Your task to perform on an android device: Search for Mexican restaurants on Maps Image 0: 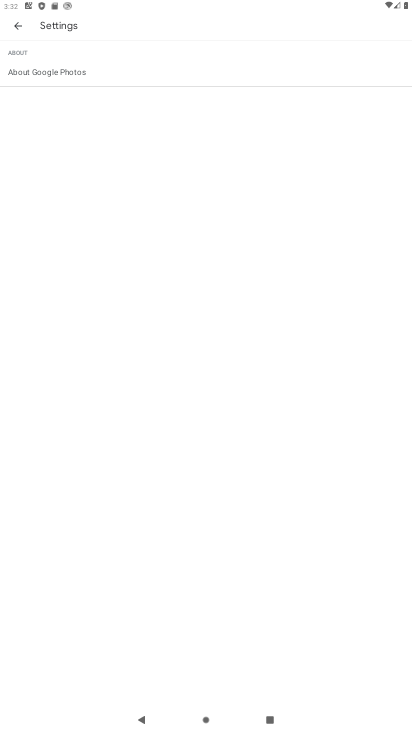
Step 0: drag from (162, 483) to (208, 715)
Your task to perform on an android device: Search for Mexican restaurants on Maps Image 1: 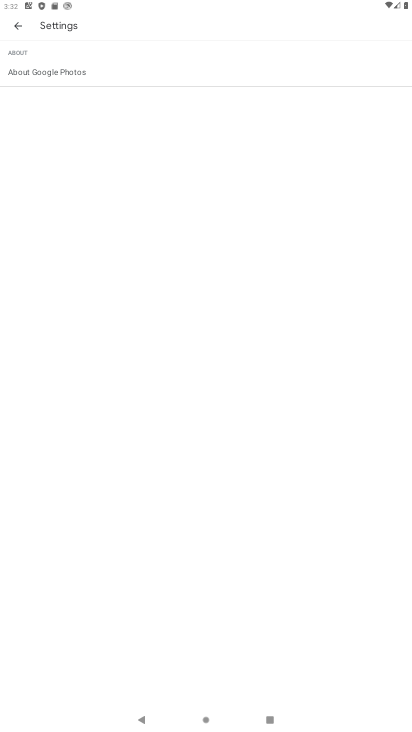
Step 1: press home button
Your task to perform on an android device: Search for Mexican restaurants on Maps Image 2: 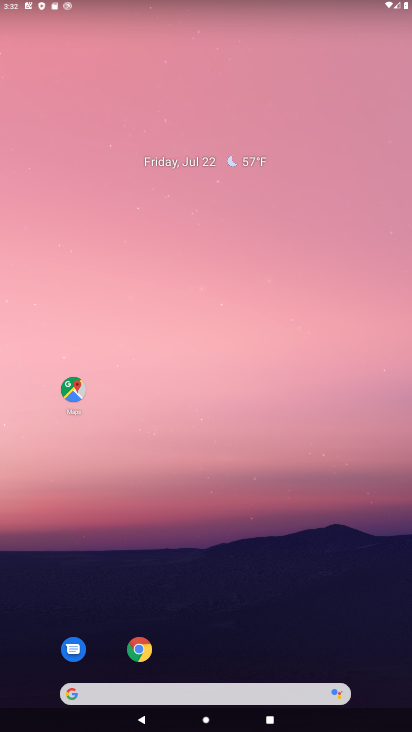
Step 2: click (72, 390)
Your task to perform on an android device: Search for Mexican restaurants on Maps Image 3: 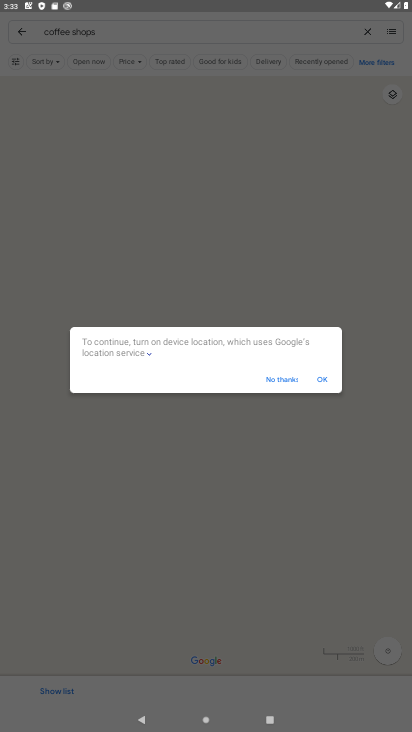
Step 3: click (324, 376)
Your task to perform on an android device: Search for Mexican restaurants on Maps Image 4: 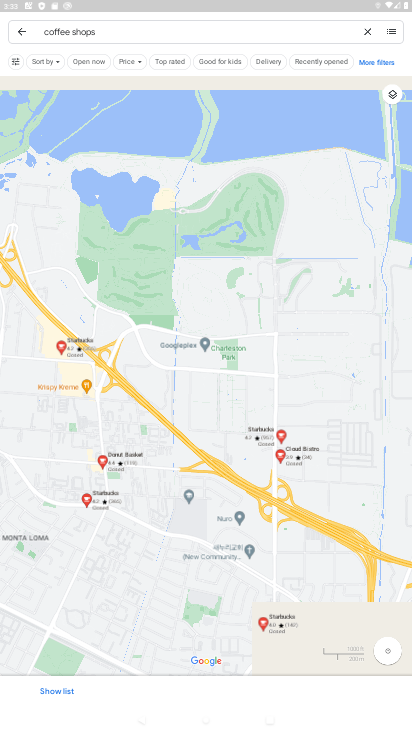
Step 4: click (14, 28)
Your task to perform on an android device: Search for Mexican restaurants on Maps Image 5: 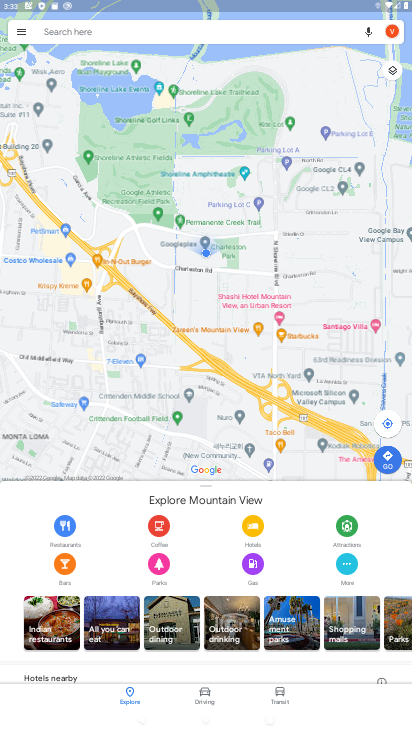
Step 5: click (74, 28)
Your task to perform on an android device: Search for Mexican restaurants on Maps Image 6: 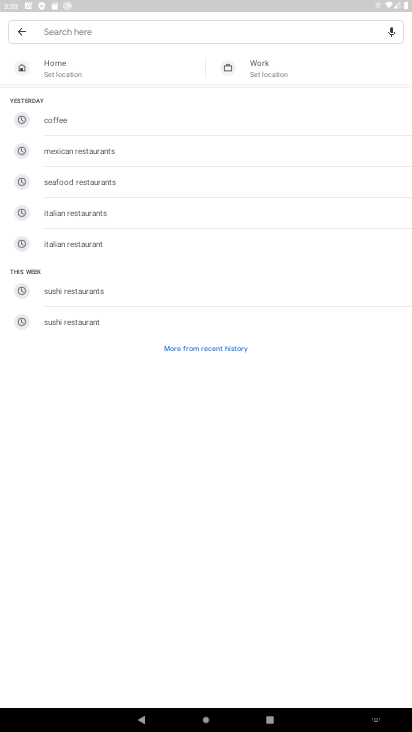
Step 6: click (65, 153)
Your task to perform on an android device: Search for Mexican restaurants on Maps Image 7: 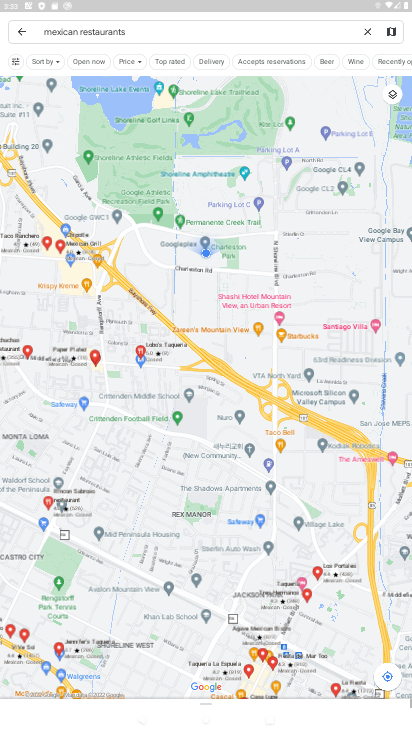
Step 7: task complete